Your task to perform on an android device: Go to Android settings Image 0: 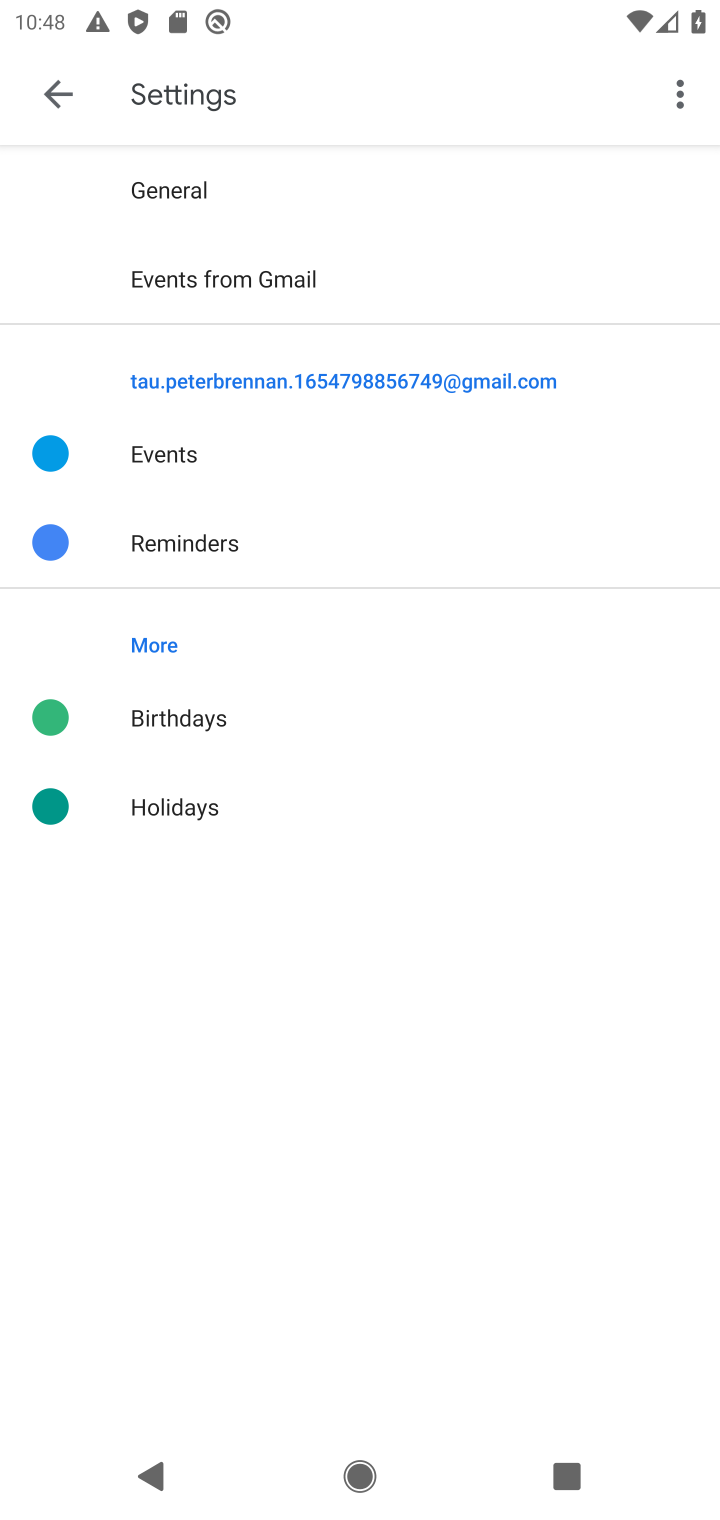
Step 0: press home button
Your task to perform on an android device: Go to Android settings Image 1: 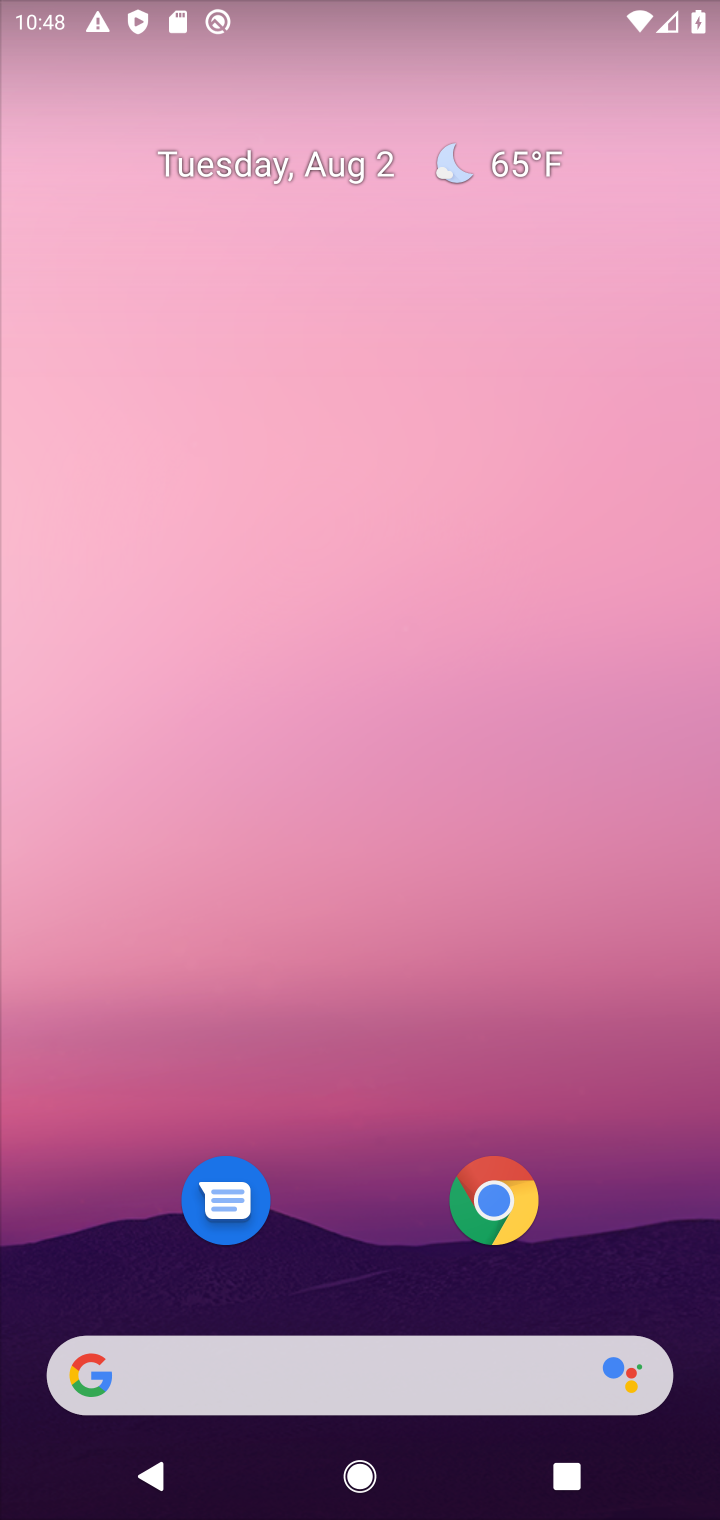
Step 1: drag from (668, 1287) to (583, 308)
Your task to perform on an android device: Go to Android settings Image 2: 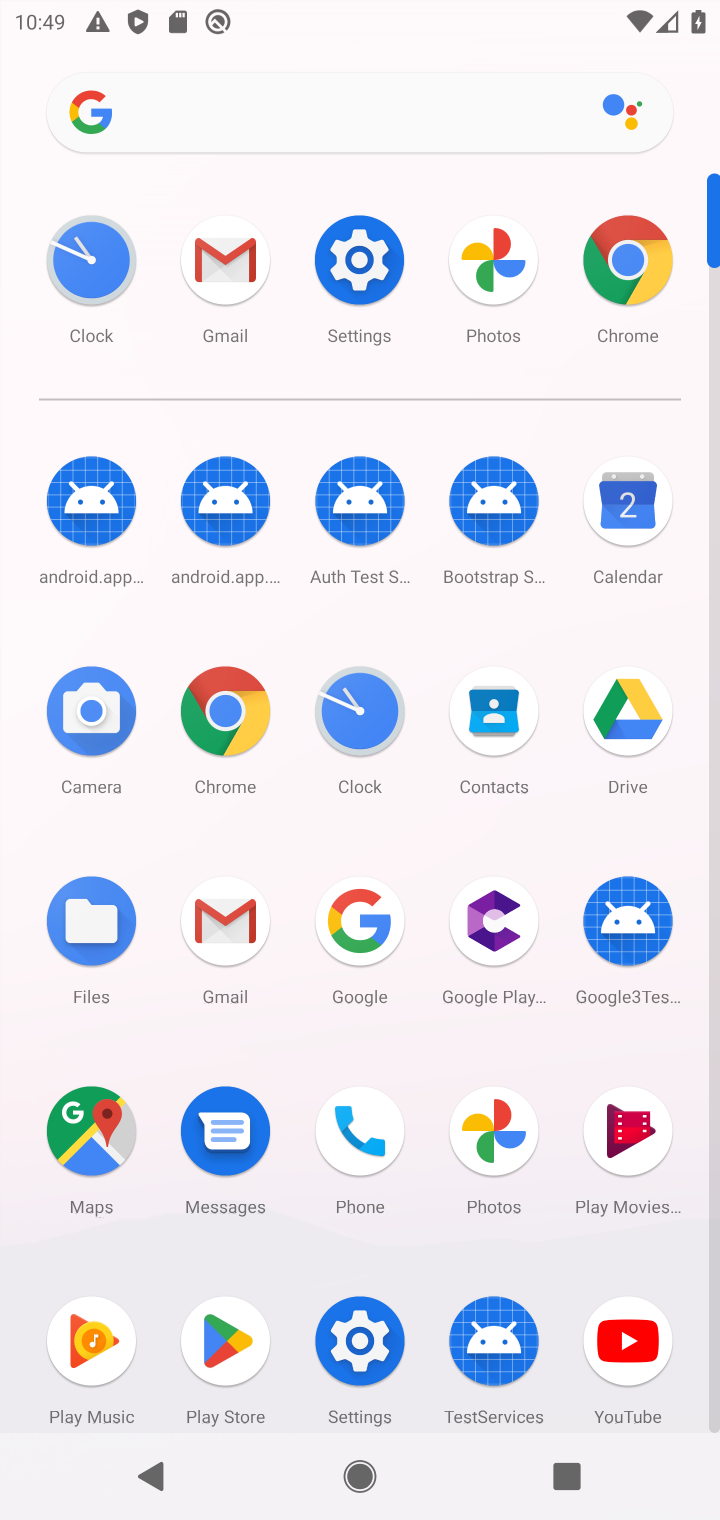
Step 2: click (364, 1349)
Your task to perform on an android device: Go to Android settings Image 3: 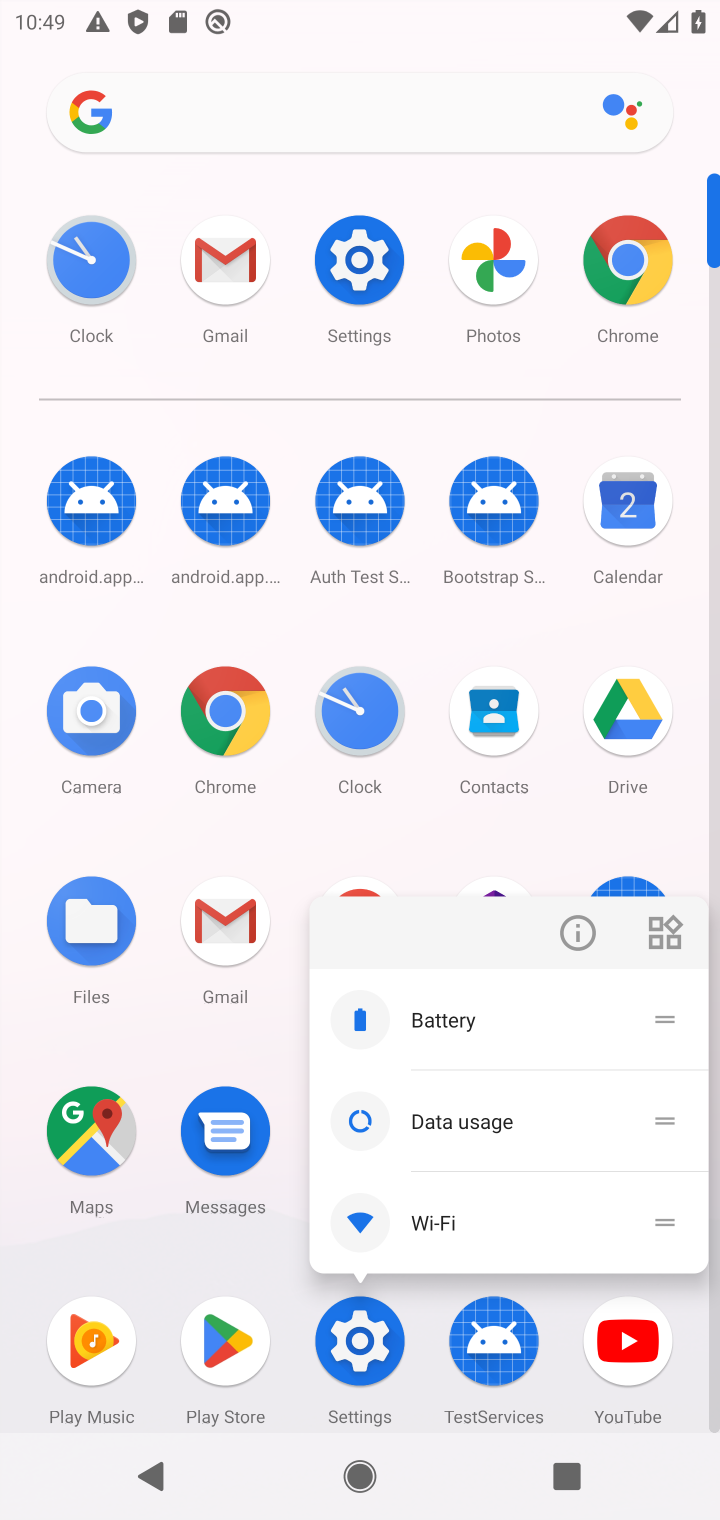
Step 3: click (362, 1337)
Your task to perform on an android device: Go to Android settings Image 4: 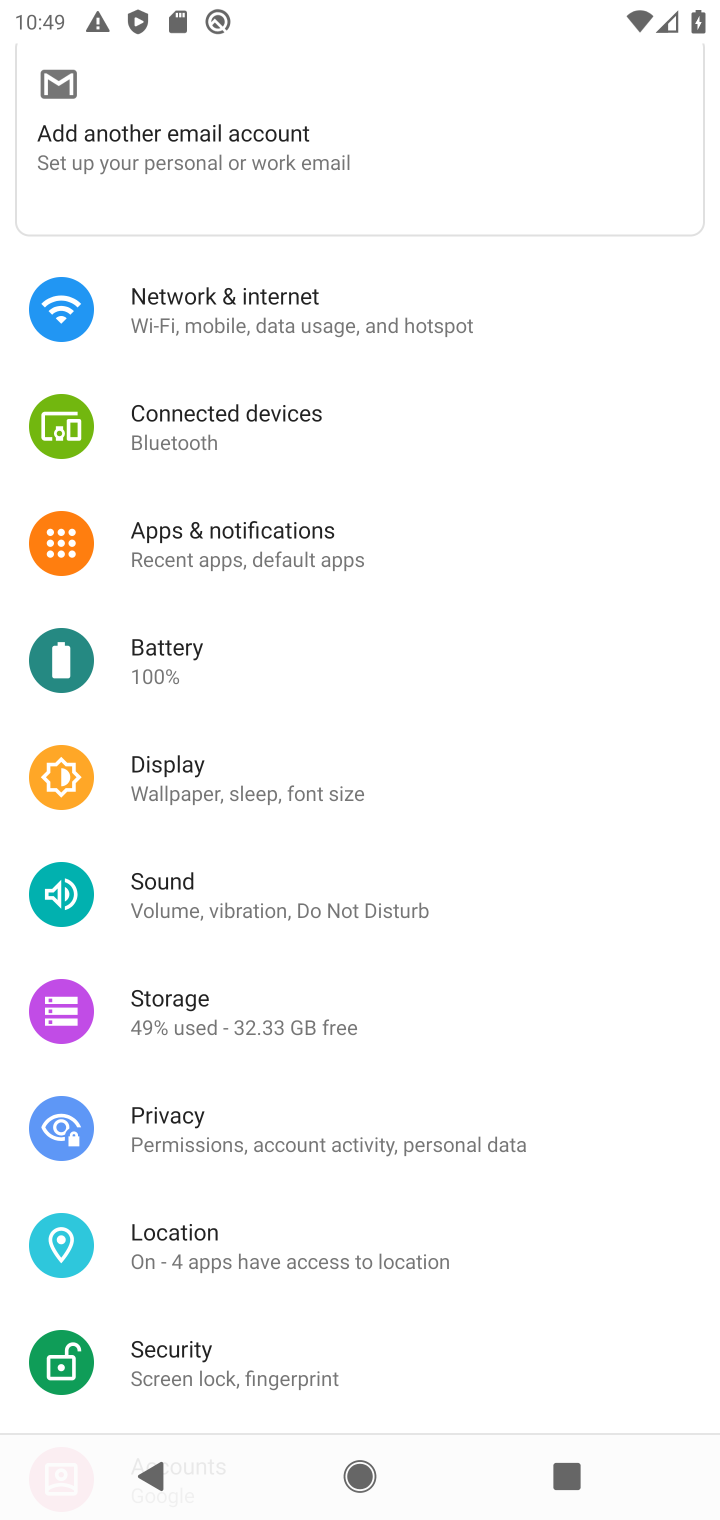
Step 4: drag from (433, 1342) to (408, 251)
Your task to perform on an android device: Go to Android settings Image 5: 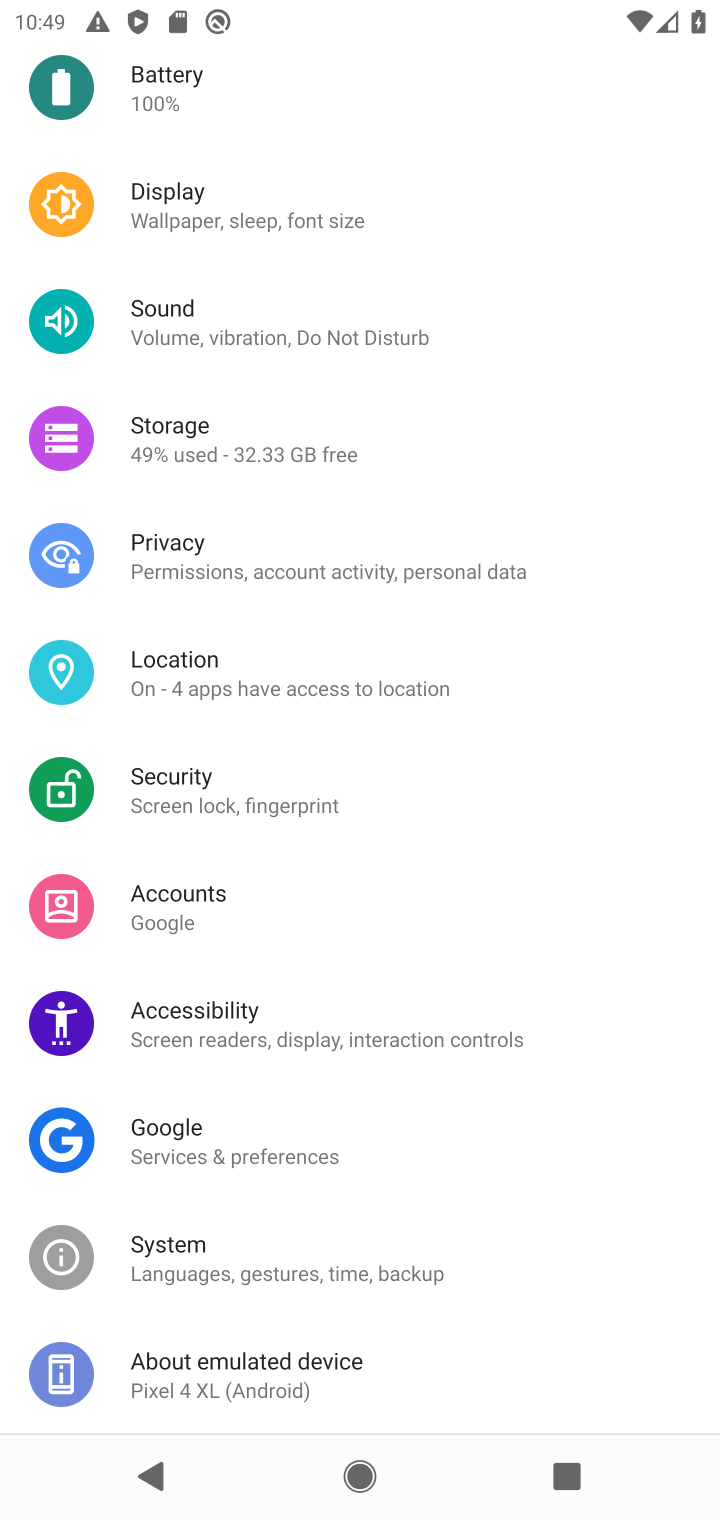
Step 5: click (271, 1354)
Your task to perform on an android device: Go to Android settings Image 6: 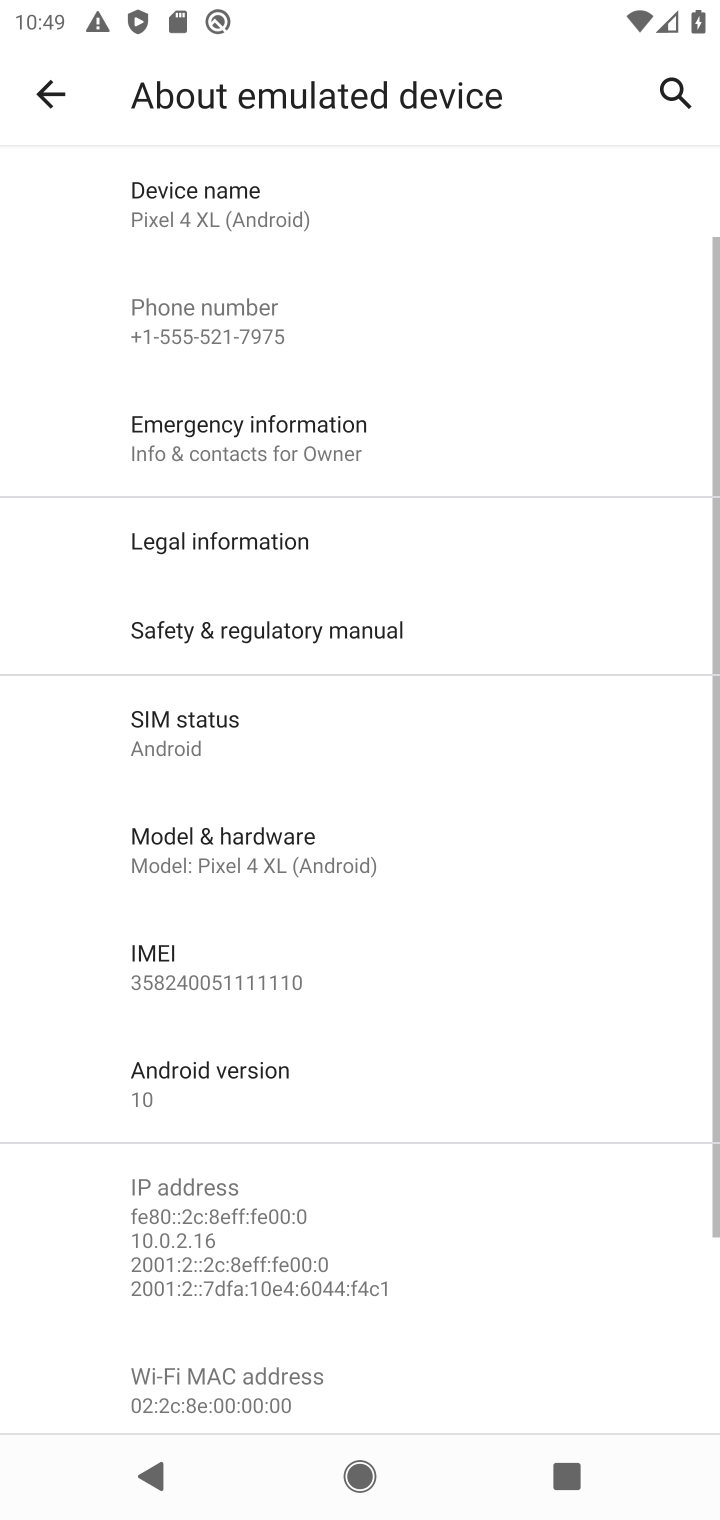
Step 6: task complete